Your task to perform on an android device: Open Reddit.com Image 0: 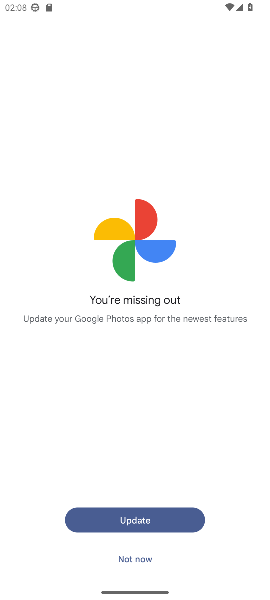
Step 0: press home button
Your task to perform on an android device: Open Reddit.com Image 1: 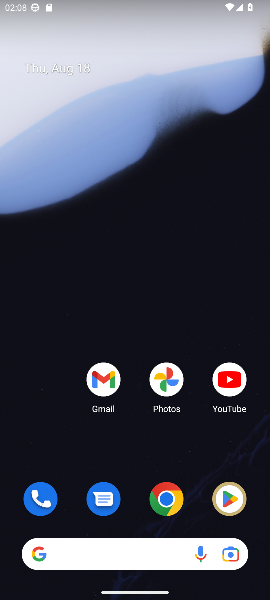
Step 1: click (170, 502)
Your task to perform on an android device: Open Reddit.com Image 2: 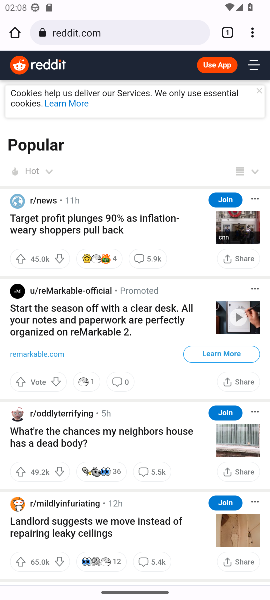
Step 2: task complete